Your task to perform on an android device: turn on notifications settings in the gmail app Image 0: 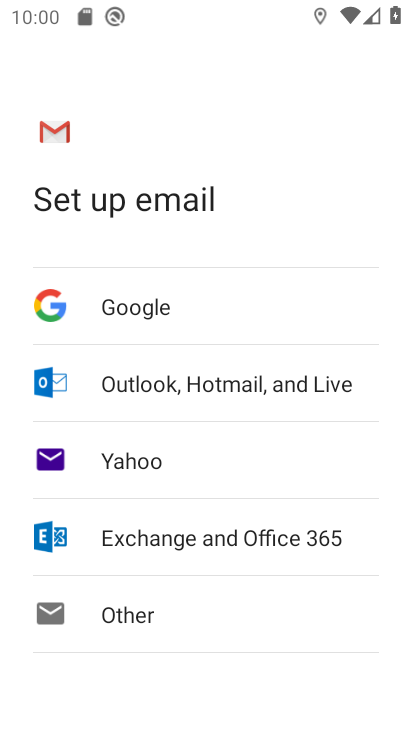
Step 0: press home button
Your task to perform on an android device: turn on notifications settings in the gmail app Image 1: 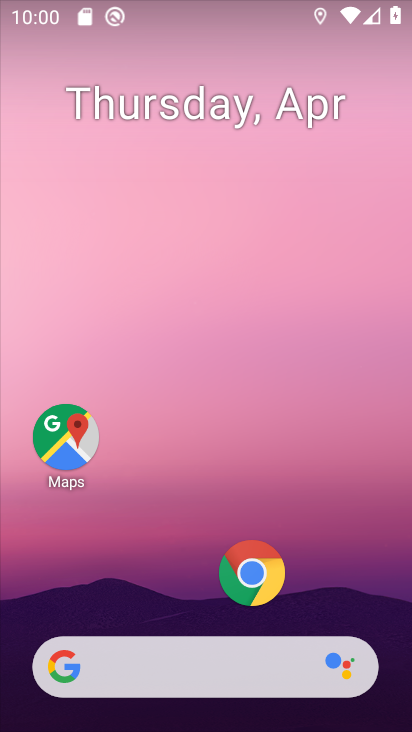
Step 1: drag from (183, 608) to (169, 71)
Your task to perform on an android device: turn on notifications settings in the gmail app Image 2: 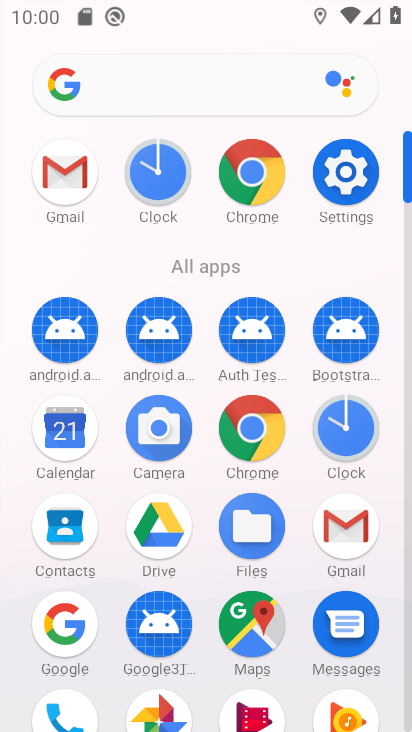
Step 2: click (75, 192)
Your task to perform on an android device: turn on notifications settings in the gmail app Image 3: 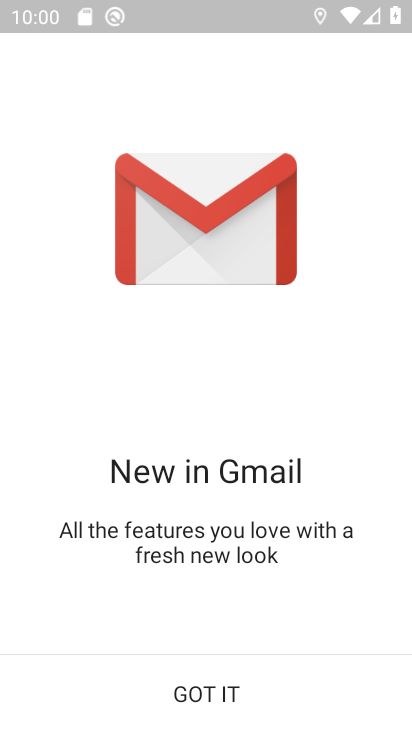
Step 3: click (225, 684)
Your task to perform on an android device: turn on notifications settings in the gmail app Image 4: 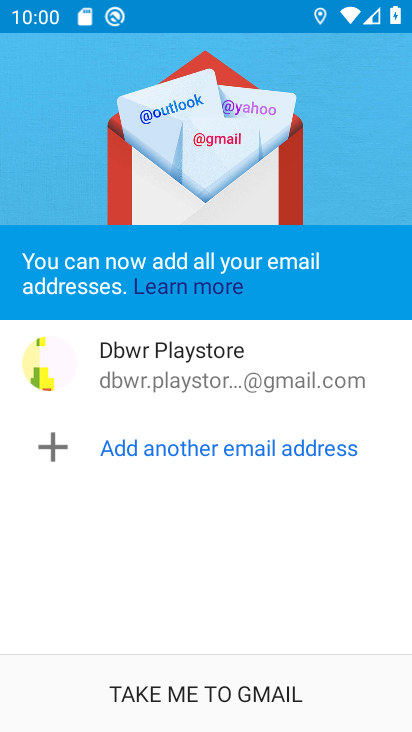
Step 4: click (225, 684)
Your task to perform on an android device: turn on notifications settings in the gmail app Image 5: 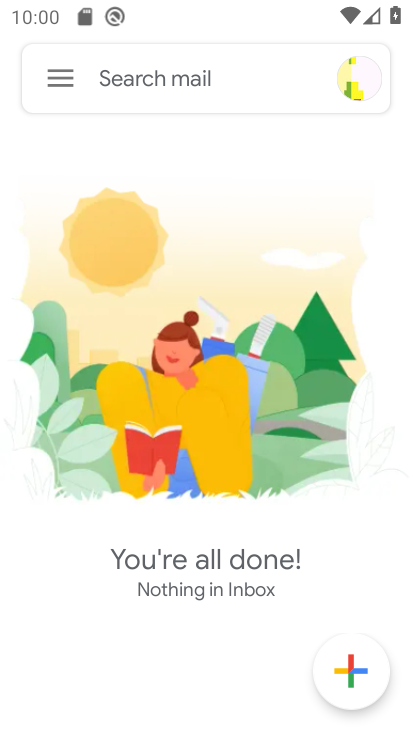
Step 5: click (61, 82)
Your task to perform on an android device: turn on notifications settings in the gmail app Image 6: 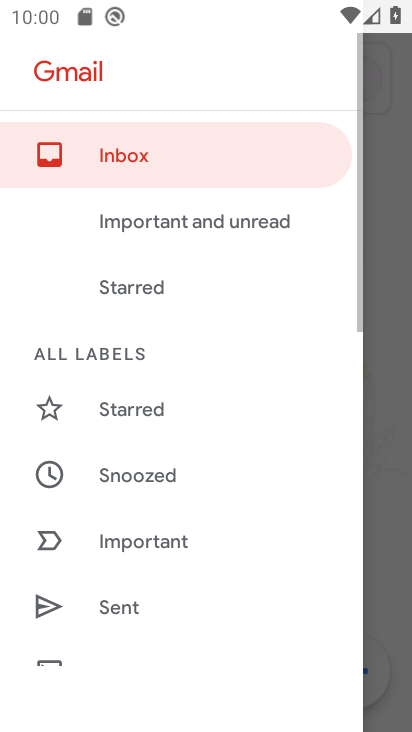
Step 6: drag from (164, 598) to (178, 204)
Your task to perform on an android device: turn on notifications settings in the gmail app Image 7: 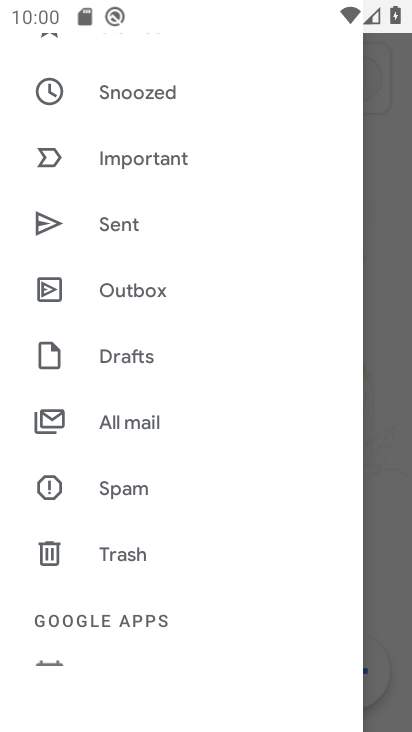
Step 7: drag from (176, 580) to (181, 271)
Your task to perform on an android device: turn on notifications settings in the gmail app Image 8: 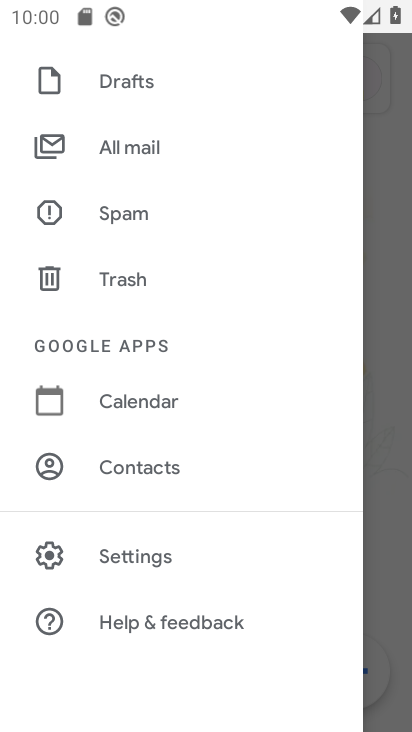
Step 8: click (171, 554)
Your task to perform on an android device: turn on notifications settings in the gmail app Image 9: 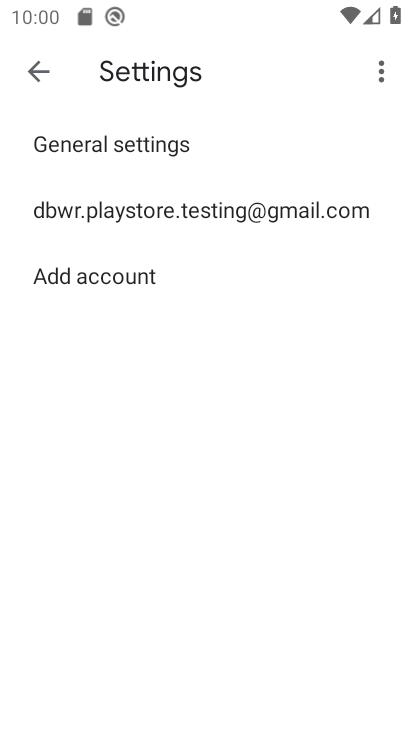
Step 9: click (212, 213)
Your task to perform on an android device: turn on notifications settings in the gmail app Image 10: 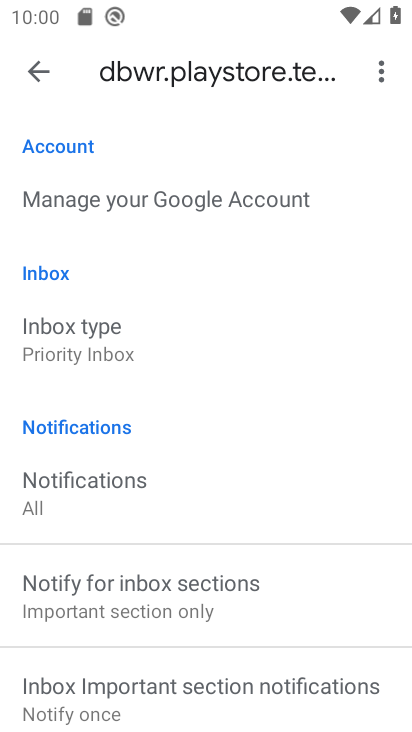
Step 10: drag from (196, 541) to (216, 326)
Your task to perform on an android device: turn on notifications settings in the gmail app Image 11: 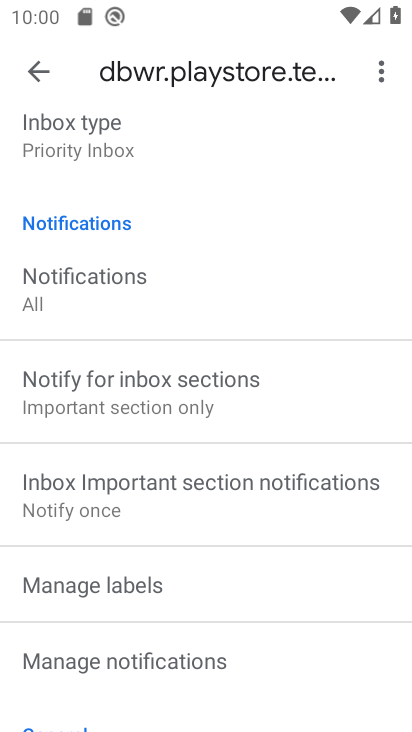
Step 11: click (191, 654)
Your task to perform on an android device: turn on notifications settings in the gmail app Image 12: 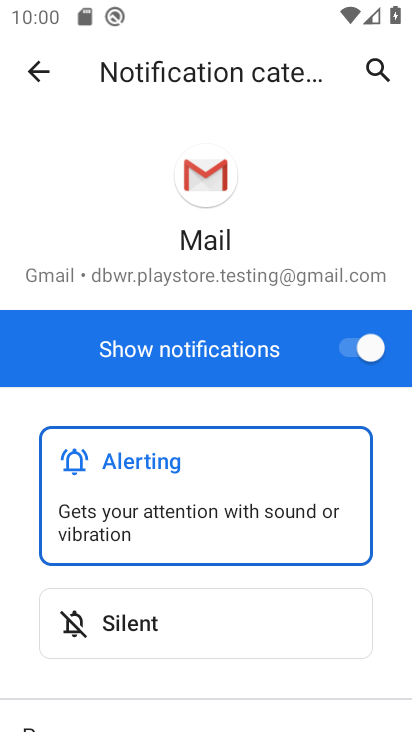
Step 12: task complete